Your task to perform on an android device: Toggle the flashlight Image 0: 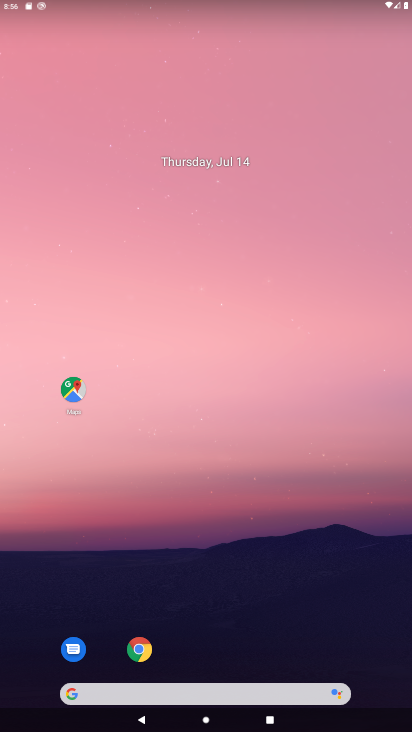
Step 0: drag from (220, 655) to (299, 3)
Your task to perform on an android device: Toggle the flashlight Image 1: 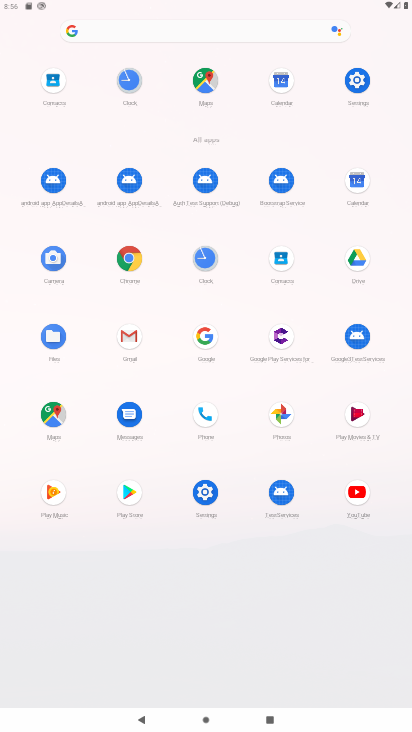
Step 1: click (205, 498)
Your task to perform on an android device: Toggle the flashlight Image 2: 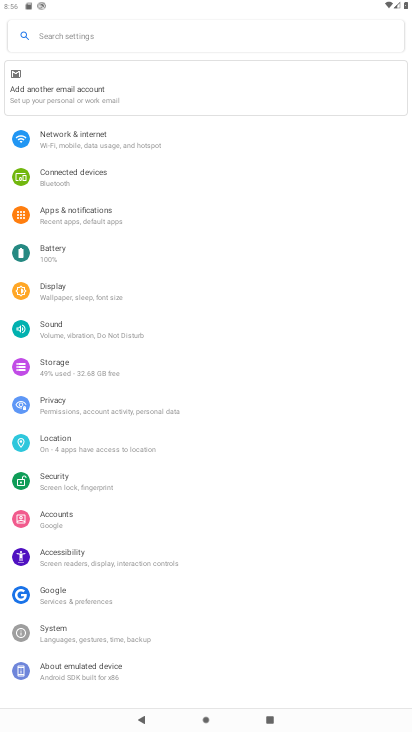
Step 2: click (132, 37)
Your task to perform on an android device: Toggle the flashlight Image 3: 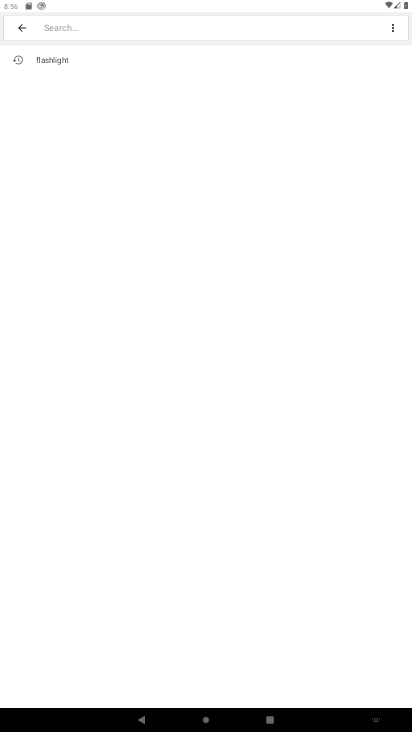
Step 3: type "flashlight"
Your task to perform on an android device: Toggle the flashlight Image 4: 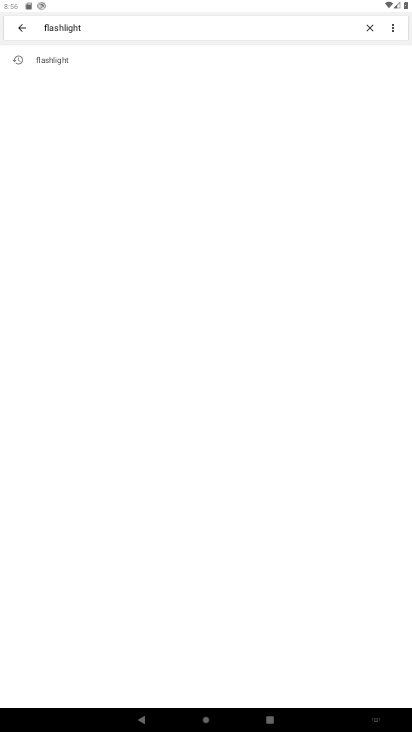
Step 4: click (55, 66)
Your task to perform on an android device: Toggle the flashlight Image 5: 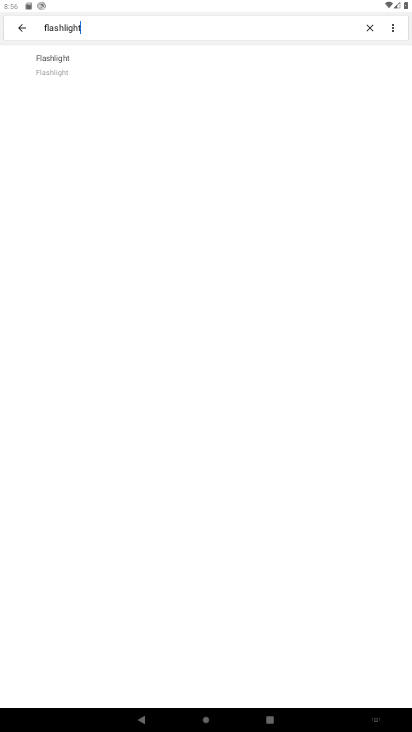
Step 5: click (54, 62)
Your task to perform on an android device: Toggle the flashlight Image 6: 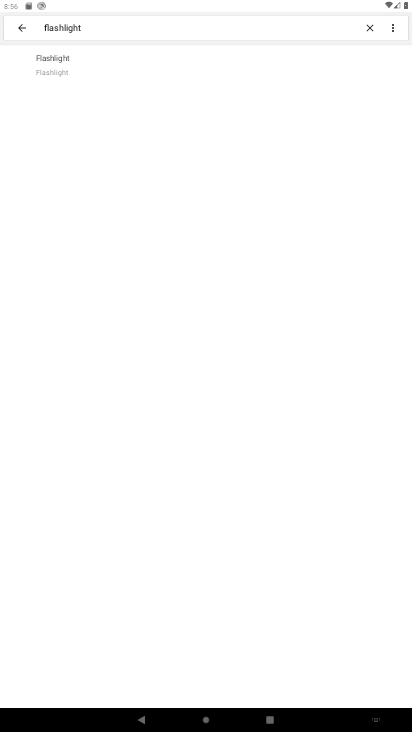
Step 6: click (54, 68)
Your task to perform on an android device: Toggle the flashlight Image 7: 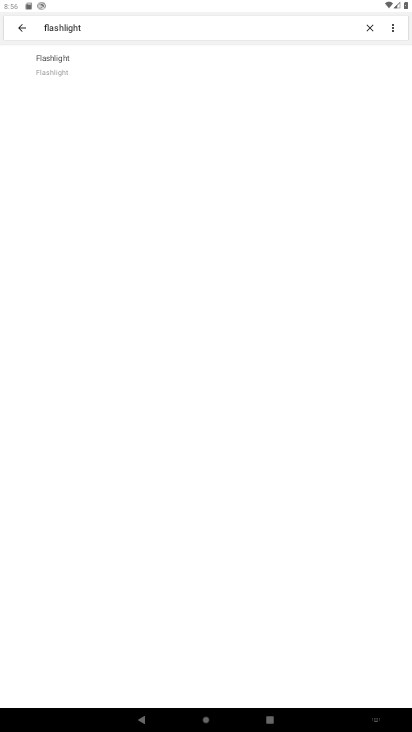
Step 7: click (55, 69)
Your task to perform on an android device: Toggle the flashlight Image 8: 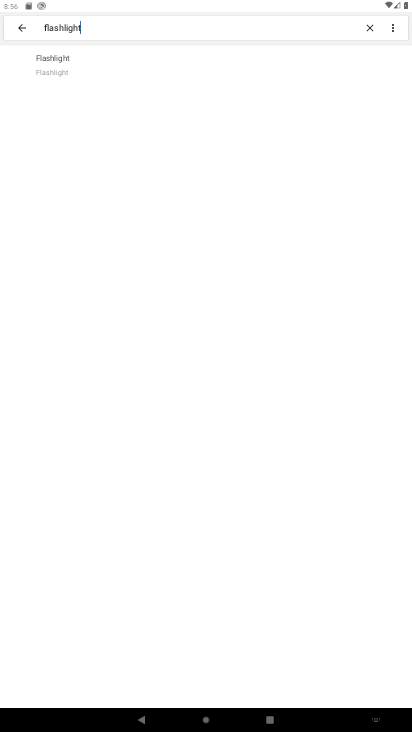
Step 8: task complete